Your task to perform on an android device: toggle sleep mode Image 0: 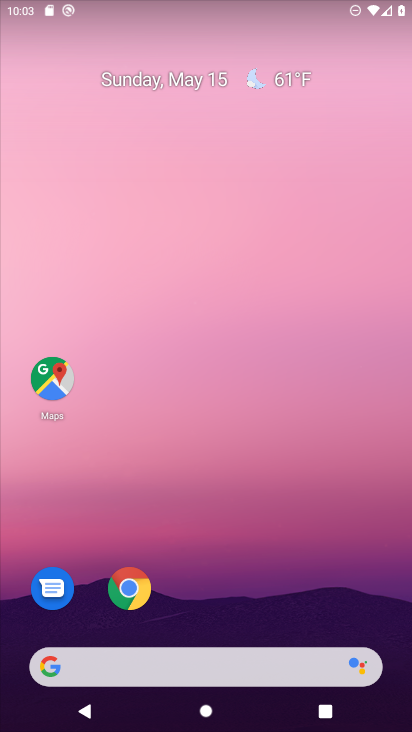
Step 0: drag from (208, 594) to (240, 12)
Your task to perform on an android device: toggle sleep mode Image 1: 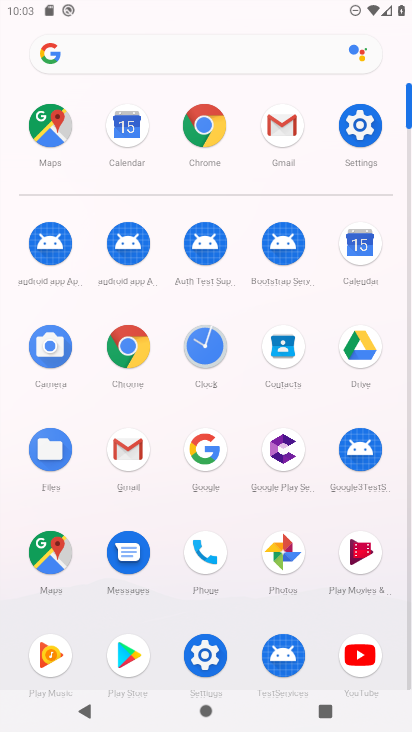
Step 1: click (361, 138)
Your task to perform on an android device: toggle sleep mode Image 2: 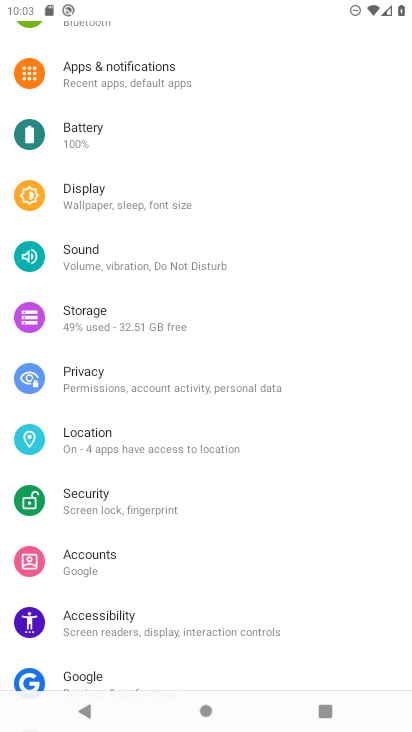
Step 2: drag from (277, 126) to (277, 535)
Your task to perform on an android device: toggle sleep mode Image 3: 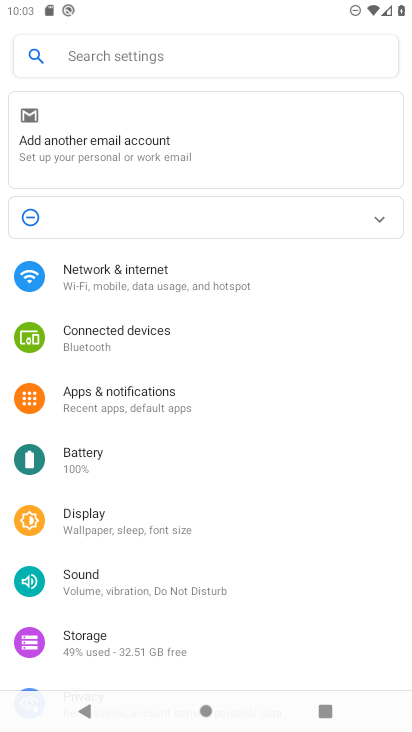
Step 3: click (207, 46)
Your task to perform on an android device: toggle sleep mode Image 4: 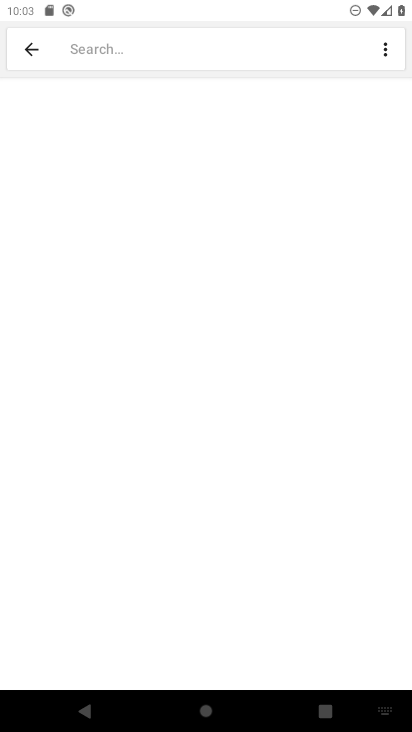
Step 4: type "sleep mode"
Your task to perform on an android device: toggle sleep mode Image 5: 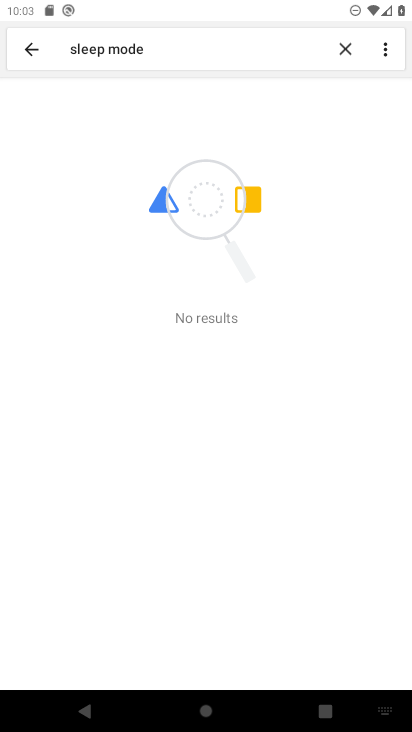
Step 5: task complete